Your task to perform on an android device: open sync settings in chrome Image 0: 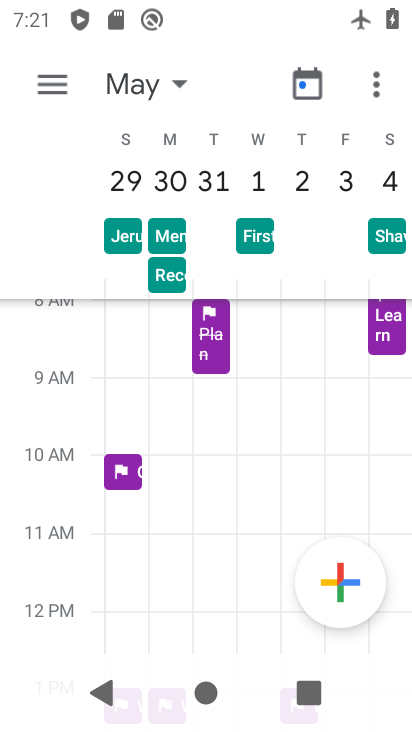
Step 0: press home button
Your task to perform on an android device: open sync settings in chrome Image 1: 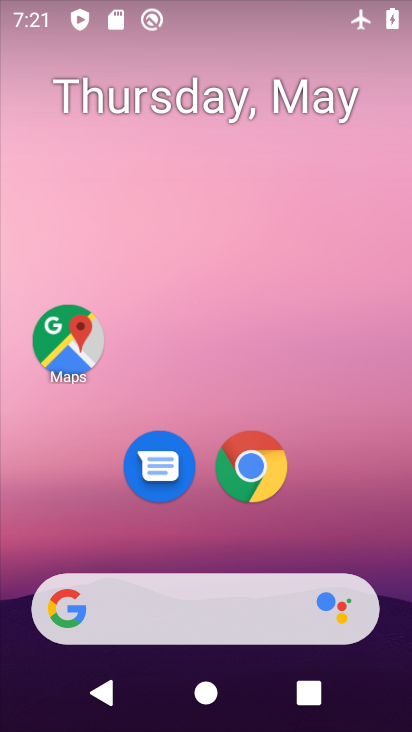
Step 1: click (249, 458)
Your task to perform on an android device: open sync settings in chrome Image 2: 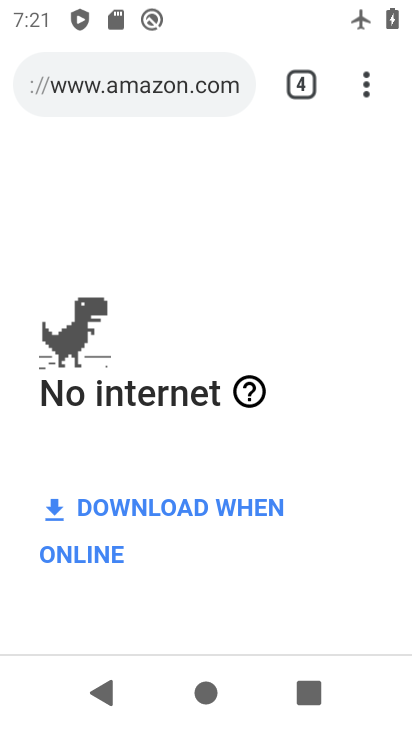
Step 2: click (370, 83)
Your task to perform on an android device: open sync settings in chrome Image 3: 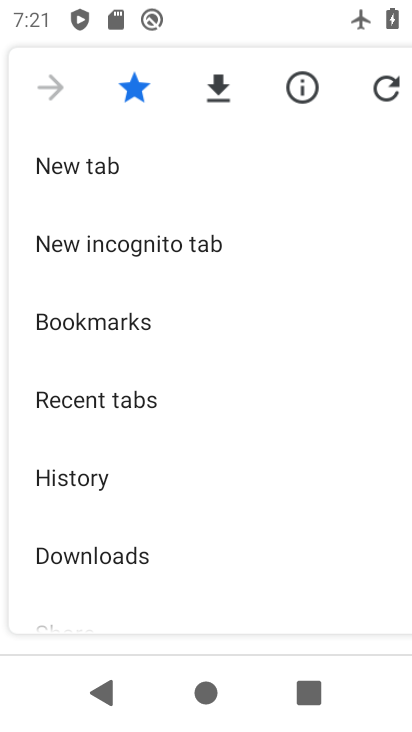
Step 3: drag from (213, 510) to (157, 148)
Your task to perform on an android device: open sync settings in chrome Image 4: 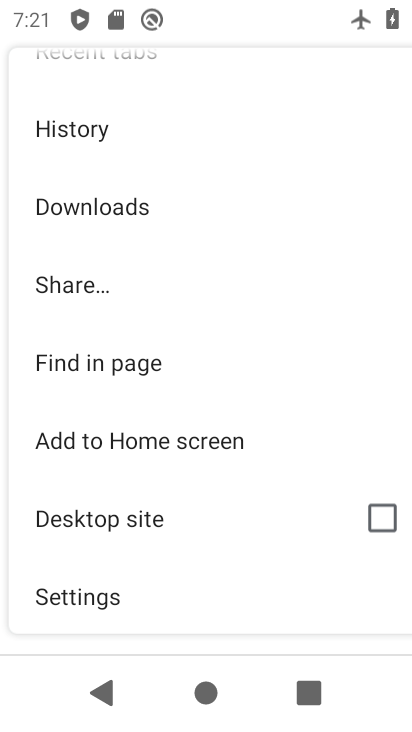
Step 4: click (95, 595)
Your task to perform on an android device: open sync settings in chrome Image 5: 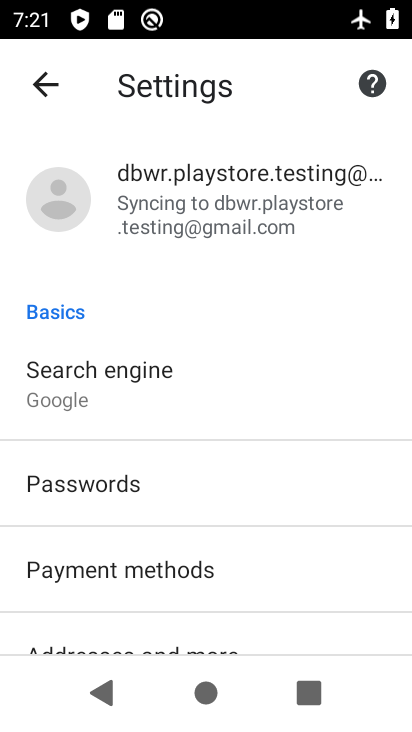
Step 5: click (174, 168)
Your task to perform on an android device: open sync settings in chrome Image 6: 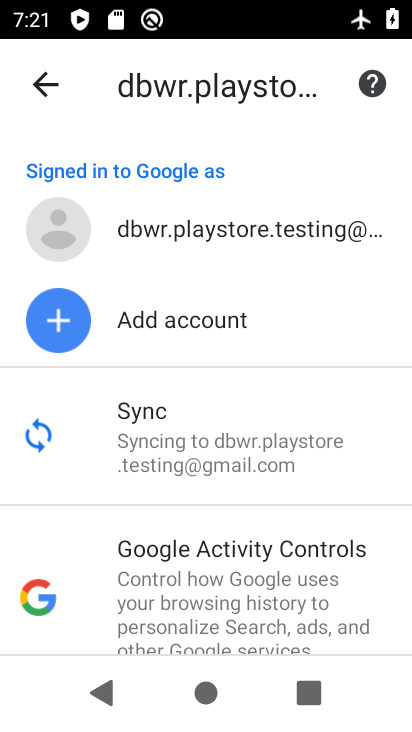
Step 6: click (159, 430)
Your task to perform on an android device: open sync settings in chrome Image 7: 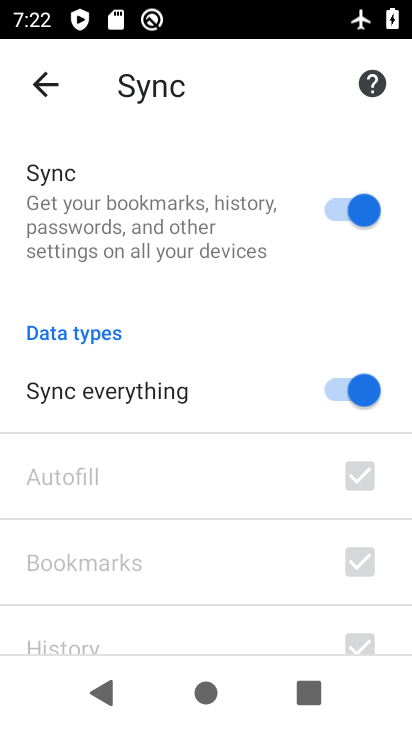
Step 7: task complete